Your task to perform on an android device: What is the recent news? Image 0: 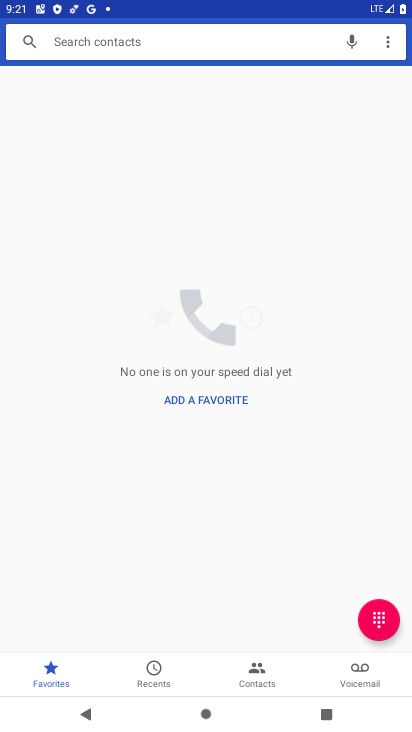
Step 0: press home button
Your task to perform on an android device: What is the recent news? Image 1: 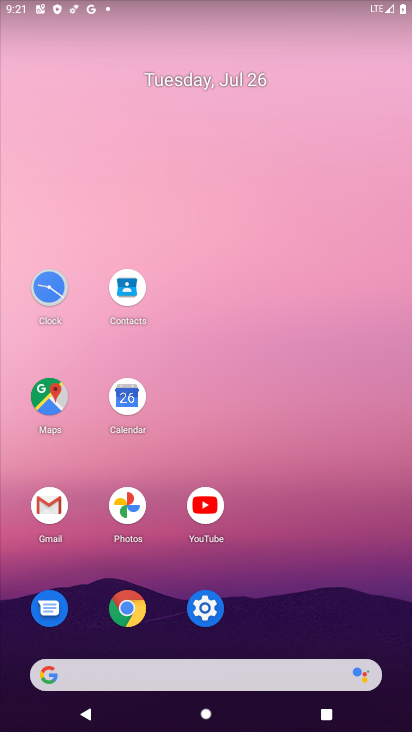
Step 1: drag from (13, 169) to (371, 195)
Your task to perform on an android device: What is the recent news? Image 2: 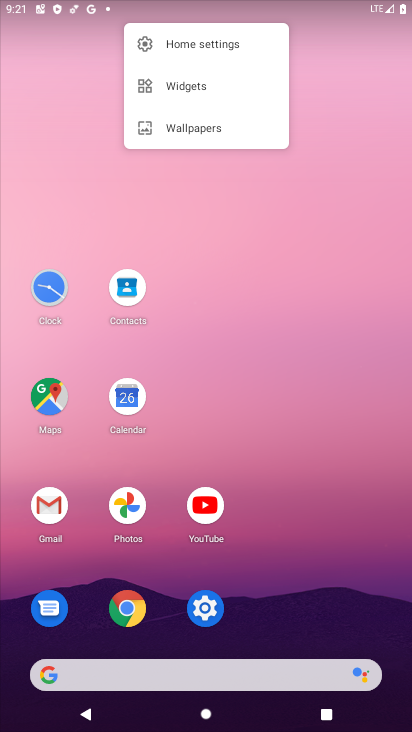
Step 2: click (293, 256)
Your task to perform on an android device: What is the recent news? Image 3: 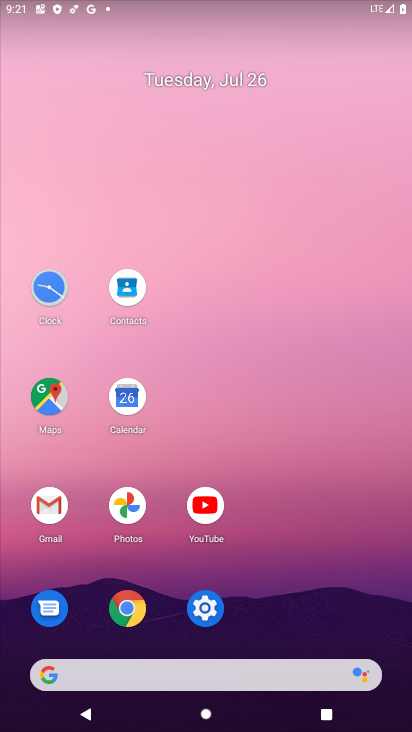
Step 3: task complete